Your task to perform on an android device: Open CNN.com Image 0: 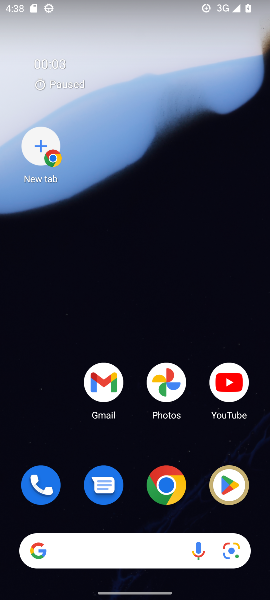
Step 0: press back button
Your task to perform on an android device: Open CNN.com Image 1: 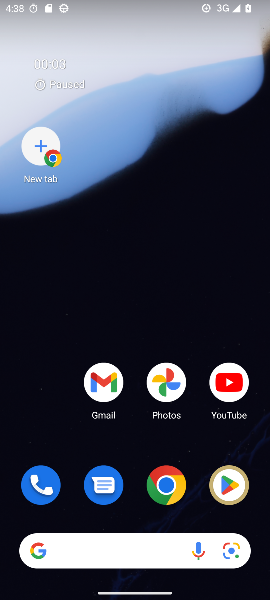
Step 1: drag from (174, 546) to (146, 262)
Your task to perform on an android device: Open CNN.com Image 2: 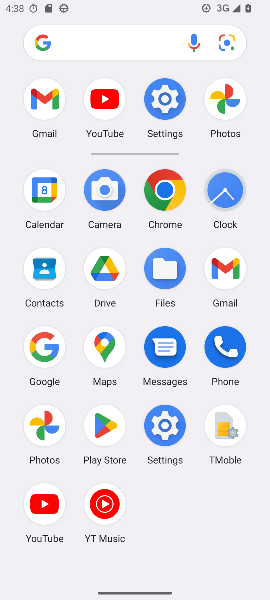
Step 2: click (167, 190)
Your task to perform on an android device: Open CNN.com Image 3: 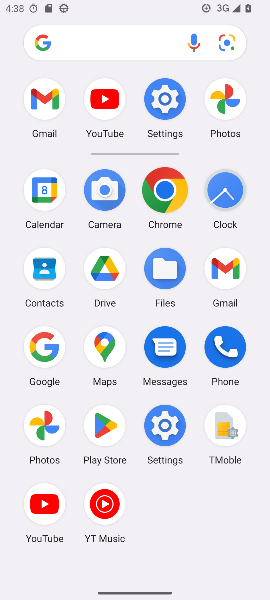
Step 3: click (168, 192)
Your task to perform on an android device: Open CNN.com Image 4: 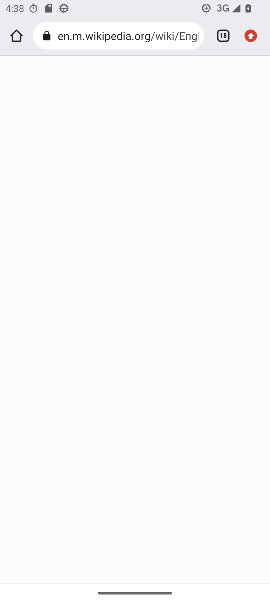
Step 4: click (80, 46)
Your task to perform on an android device: Open CNN.com Image 5: 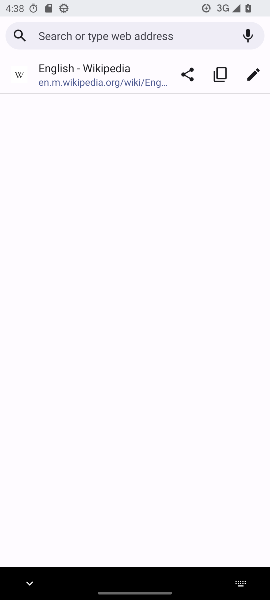
Step 5: drag from (250, 37) to (178, 467)
Your task to perform on an android device: Open CNN.com Image 6: 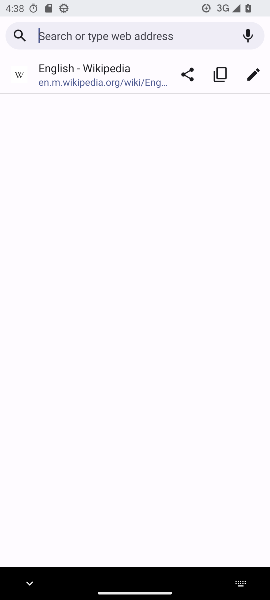
Step 6: drag from (247, 23) to (181, 437)
Your task to perform on an android device: Open CNN.com Image 7: 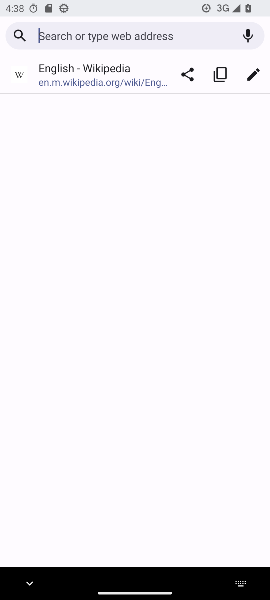
Step 7: click (234, 20)
Your task to perform on an android device: Open CNN.com Image 8: 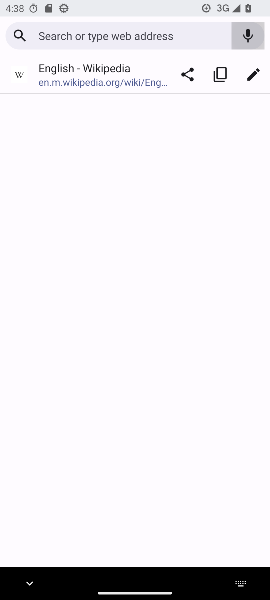
Step 8: press back button
Your task to perform on an android device: Open CNN.com Image 9: 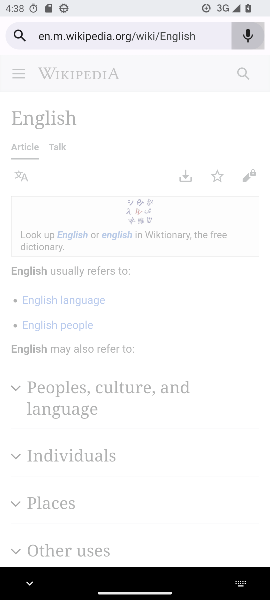
Step 9: click (231, 23)
Your task to perform on an android device: Open CNN.com Image 10: 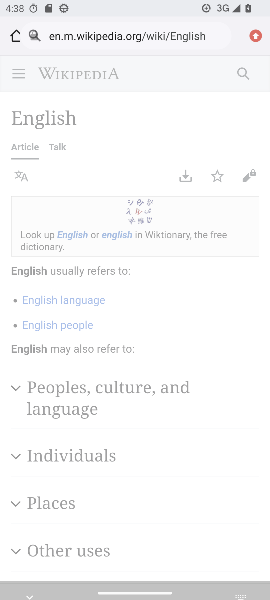
Step 10: press back button
Your task to perform on an android device: Open CNN.com Image 11: 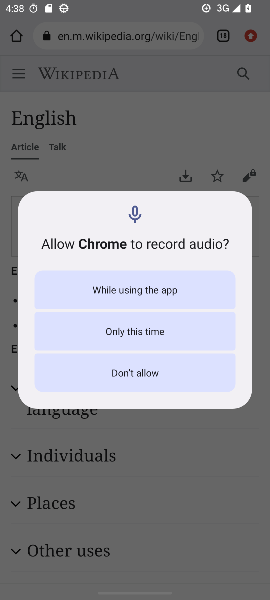
Step 11: press back button
Your task to perform on an android device: Open CNN.com Image 12: 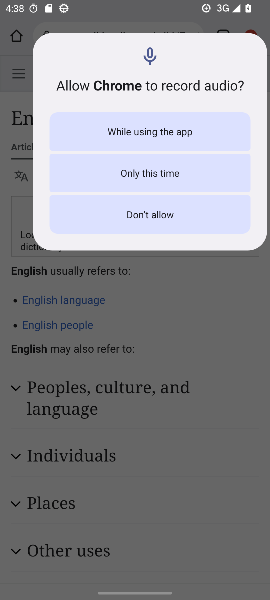
Step 12: drag from (231, 23) to (264, 36)
Your task to perform on an android device: Open CNN.com Image 13: 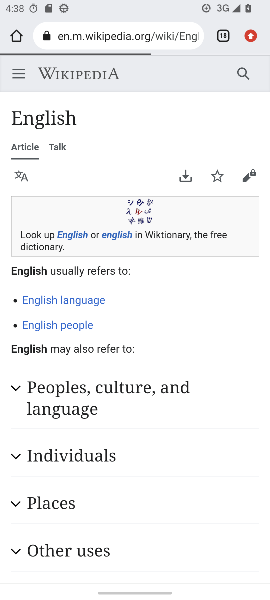
Step 13: drag from (246, 21) to (141, 528)
Your task to perform on an android device: Open CNN.com Image 14: 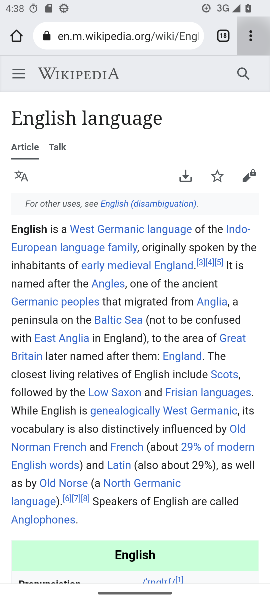
Step 14: drag from (243, 30) to (208, 478)
Your task to perform on an android device: Open CNN.com Image 15: 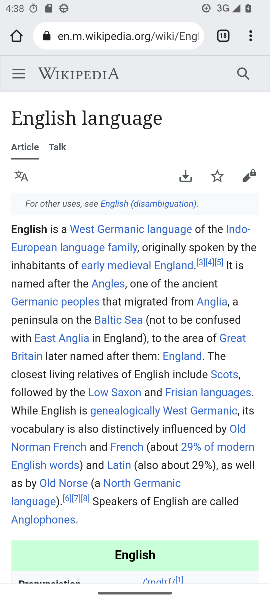
Step 15: click (248, 38)
Your task to perform on an android device: Open CNN.com Image 16: 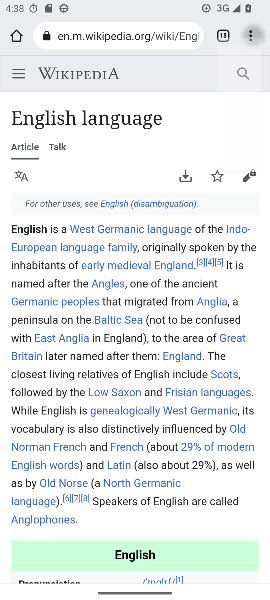
Step 16: click (244, 45)
Your task to perform on an android device: Open CNN.com Image 17: 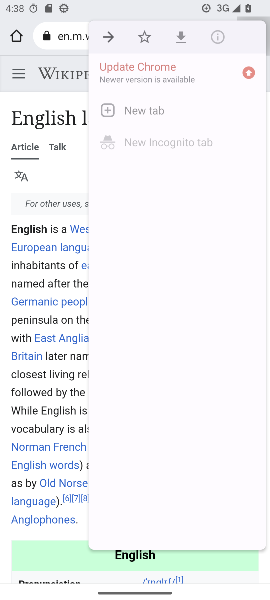
Step 17: drag from (244, 45) to (91, 229)
Your task to perform on an android device: Open CNN.com Image 18: 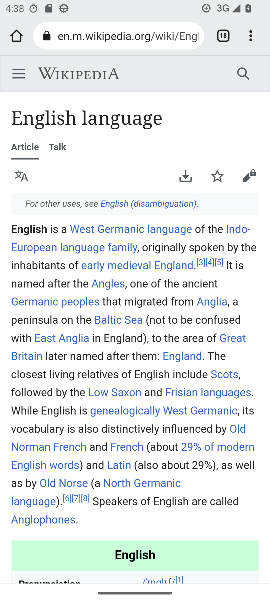
Step 18: drag from (249, 32) to (139, 109)
Your task to perform on an android device: Open CNN.com Image 19: 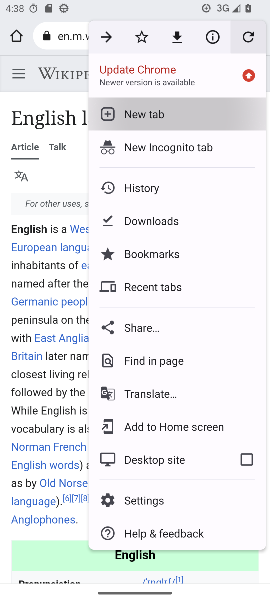
Step 19: click (142, 110)
Your task to perform on an android device: Open CNN.com Image 20: 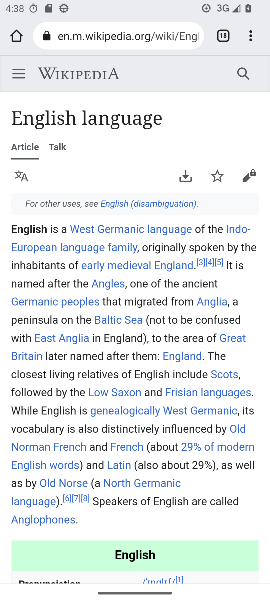
Step 20: click (145, 107)
Your task to perform on an android device: Open CNN.com Image 21: 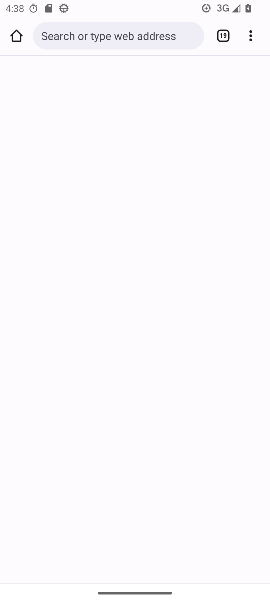
Step 21: click (145, 106)
Your task to perform on an android device: Open CNN.com Image 22: 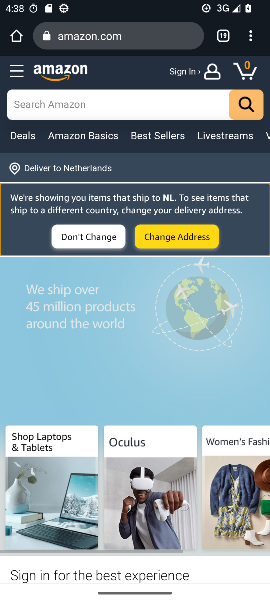
Step 22: click (75, 34)
Your task to perform on an android device: Open CNN.com Image 23: 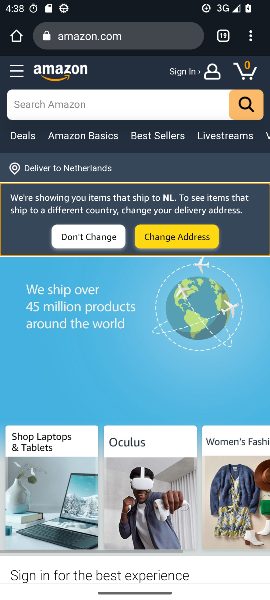
Step 23: click (70, 31)
Your task to perform on an android device: Open CNN.com Image 24: 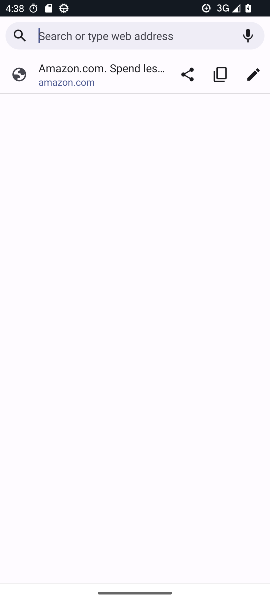
Step 24: click (70, 31)
Your task to perform on an android device: Open CNN.com Image 25: 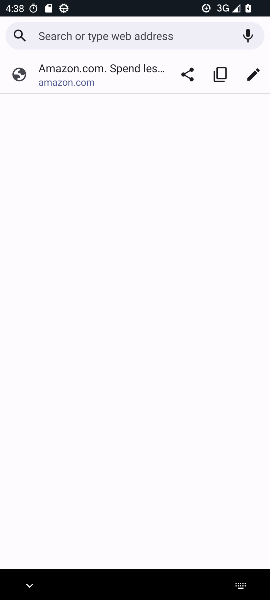
Step 25: click (70, 30)
Your task to perform on an android device: Open CNN.com Image 26: 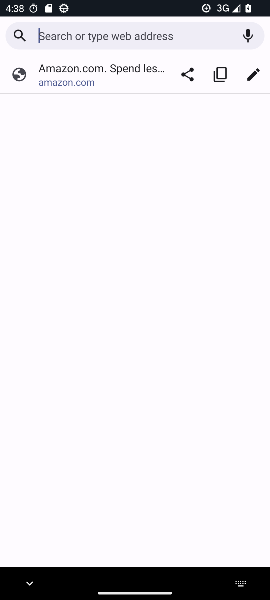
Step 26: type "CNN.com"
Your task to perform on an android device: Open CNN.com Image 27: 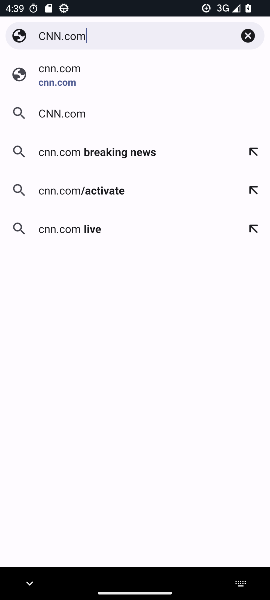
Step 27: click (39, 88)
Your task to perform on an android device: Open CNN.com Image 28: 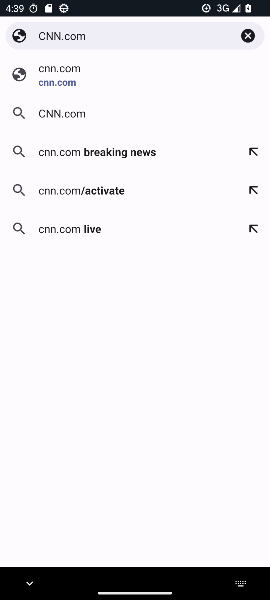
Step 28: click (50, 75)
Your task to perform on an android device: Open CNN.com Image 29: 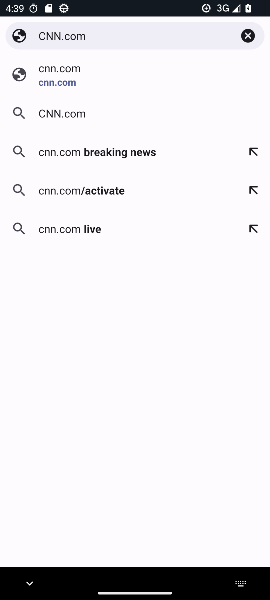
Step 29: click (51, 76)
Your task to perform on an android device: Open CNN.com Image 30: 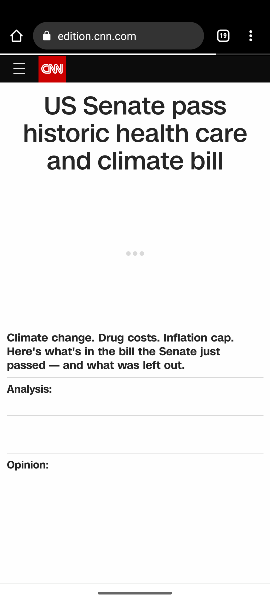
Step 30: task complete